Your task to perform on an android device: move a message to another label in the gmail app Image 0: 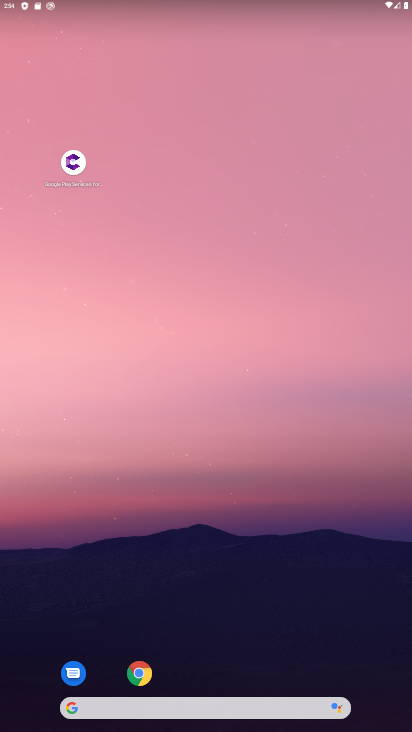
Step 0: drag from (218, 400) to (237, 105)
Your task to perform on an android device: move a message to another label in the gmail app Image 1: 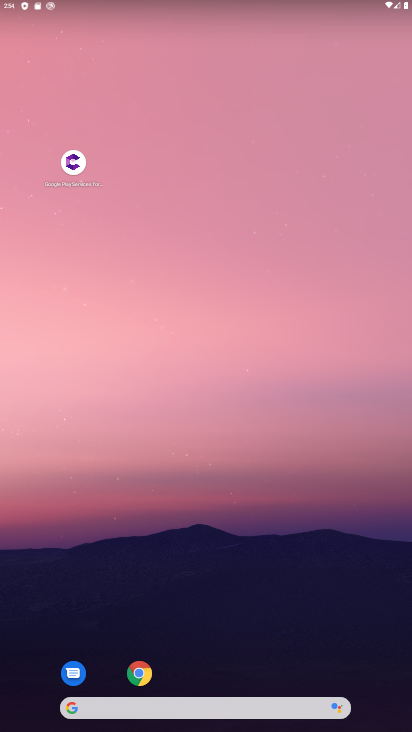
Step 1: drag from (275, 572) to (259, 166)
Your task to perform on an android device: move a message to another label in the gmail app Image 2: 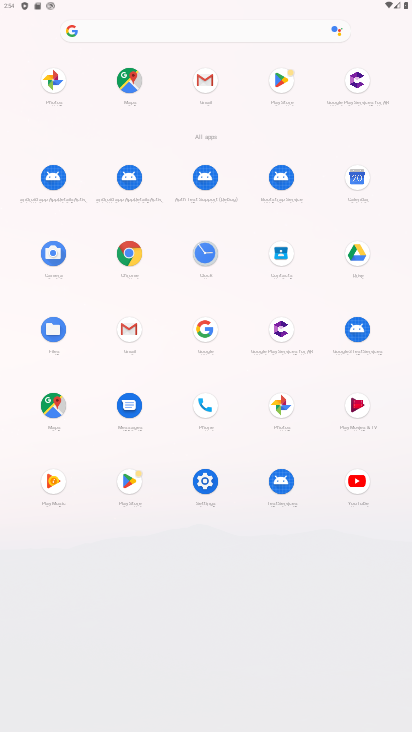
Step 2: click (210, 80)
Your task to perform on an android device: move a message to another label in the gmail app Image 3: 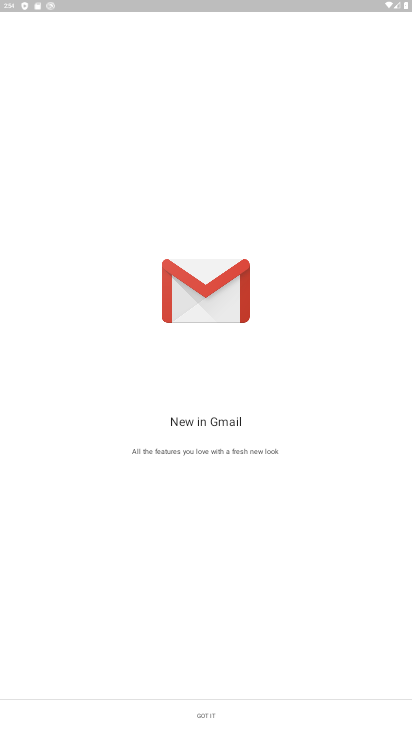
Step 3: click (209, 712)
Your task to perform on an android device: move a message to another label in the gmail app Image 4: 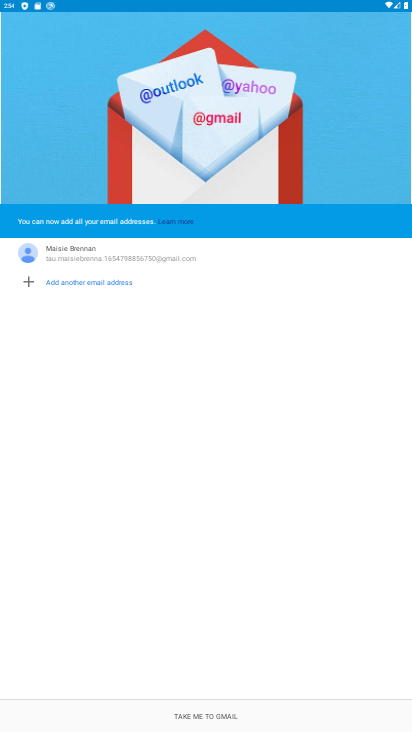
Step 4: click (251, 707)
Your task to perform on an android device: move a message to another label in the gmail app Image 5: 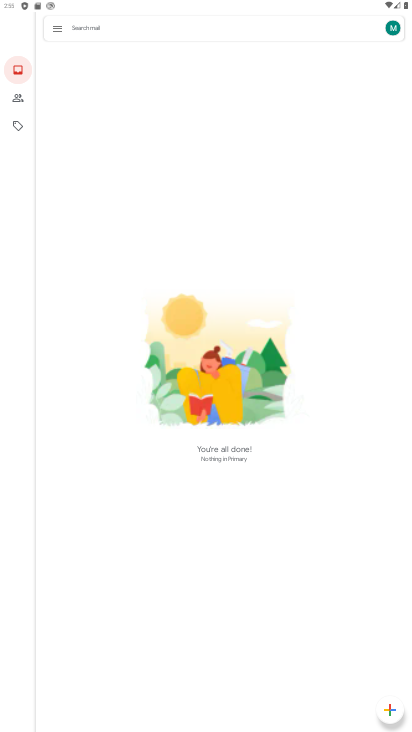
Step 5: task complete